Your task to perform on an android device: Go to calendar. Show me events next week Image 0: 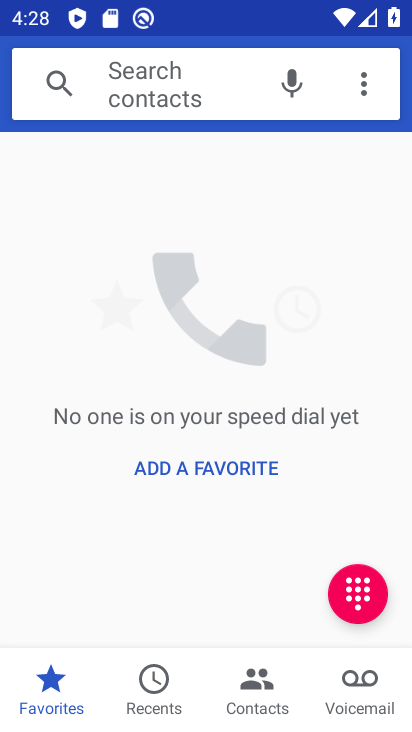
Step 0: press home button
Your task to perform on an android device: Go to calendar. Show me events next week Image 1: 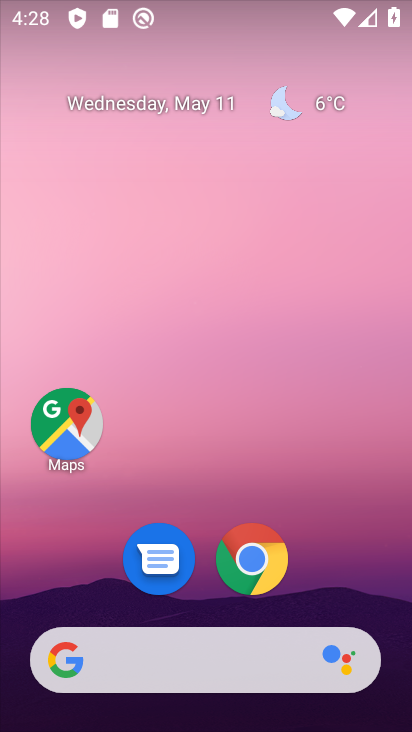
Step 1: drag from (307, 597) to (305, 238)
Your task to perform on an android device: Go to calendar. Show me events next week Image 2: 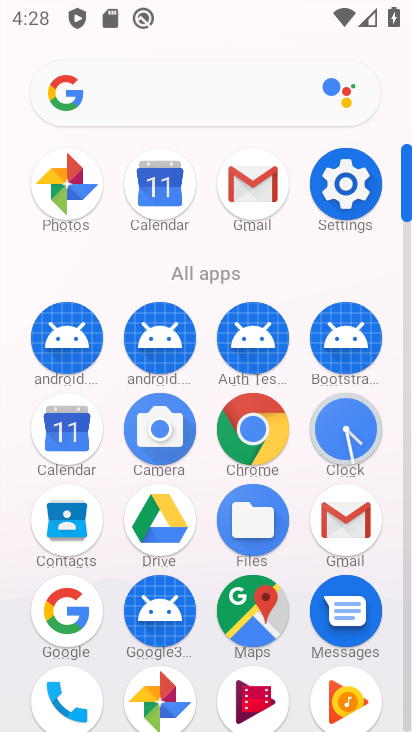
Step 2: drag from (309, 590) to (309, 242)
Your task to perform on an android device: Go to calendar. Show me events next week Image 3: 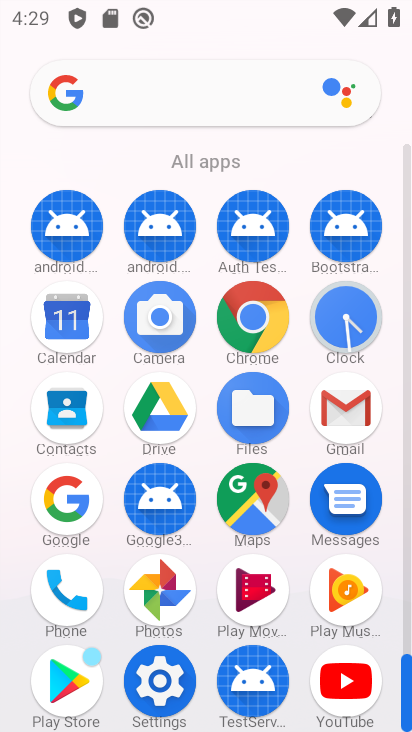
Step 3: drag from (248, 596) to (249, 328)
Your task to perform on an android device: Go to calendar. Show me events next week Image 4: 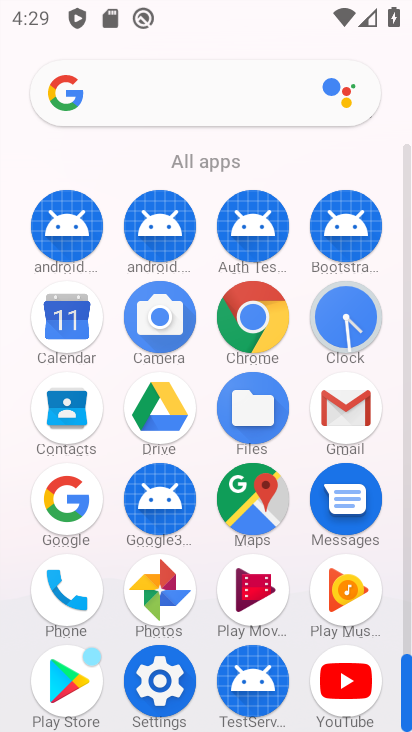
Step 4: click (80, 343)
Your task to perform on an android device: Go to calendar. Show me events next week Image 5: 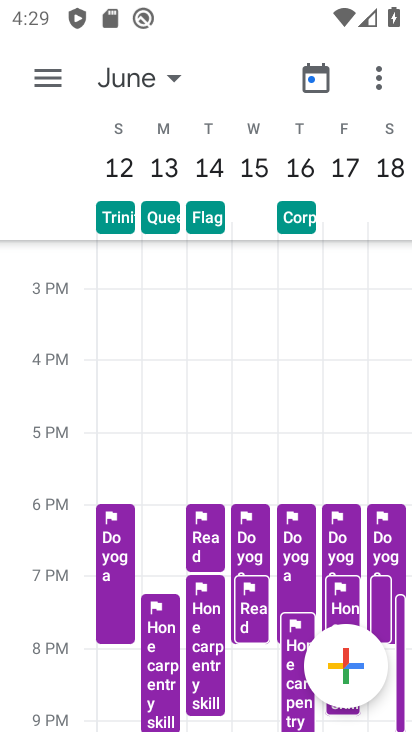
Step 5: click (144, 84)
Your task to perform on an android device: Go to calendar. Show me events next week Image 6: 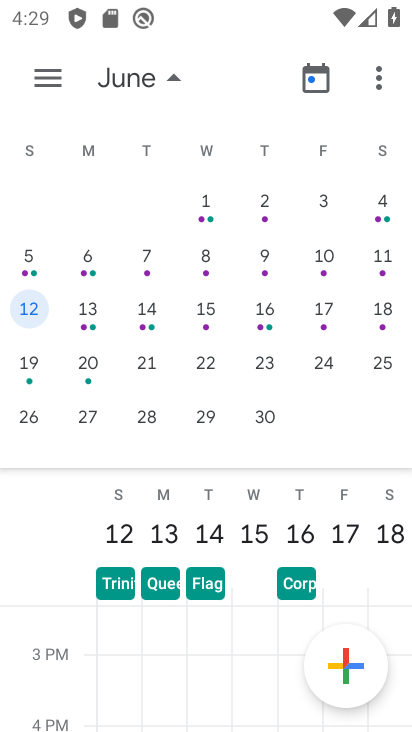
Step 6: drag from (63, 317) to (399, 329)
Your task to perform on an android device: Go to calendar. Show me events next week Image 7: 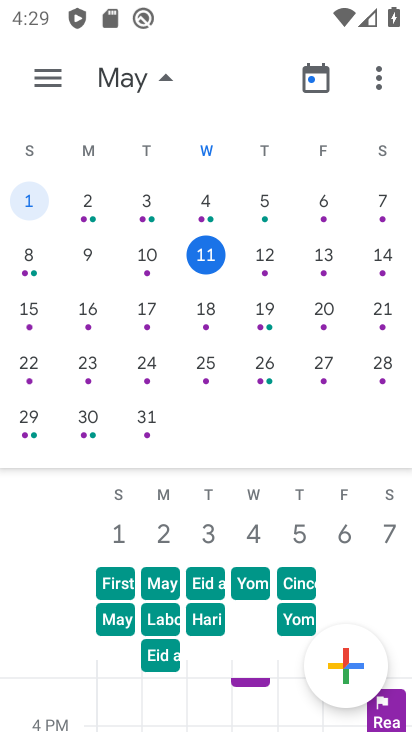
Step 7: click (34, 265)
Your task to perform on an android device: Go to calendar. Show me events next week Image 8: 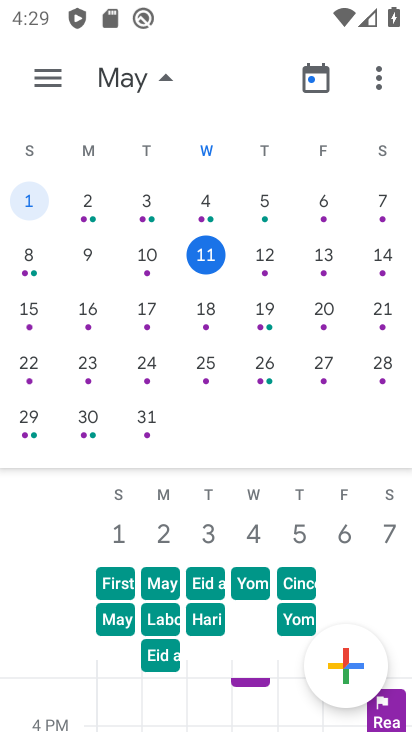
Step 8: click (34, 265)
Your task to perform on an android device: Go to calendar. Show me events next week Image 9: 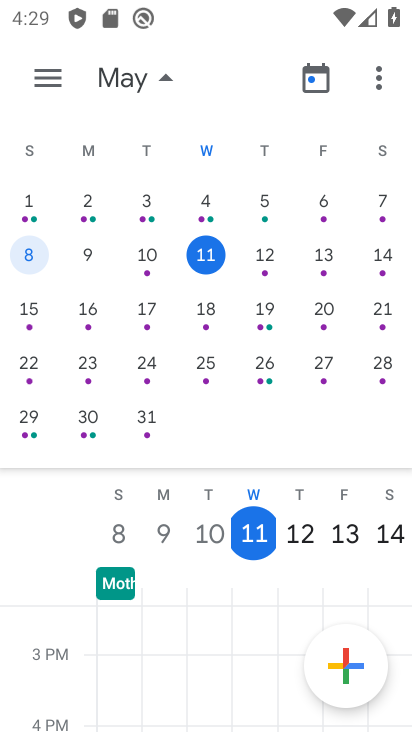
Step 9: task complete